Your task to perform on an android device: Check the news Image 0: 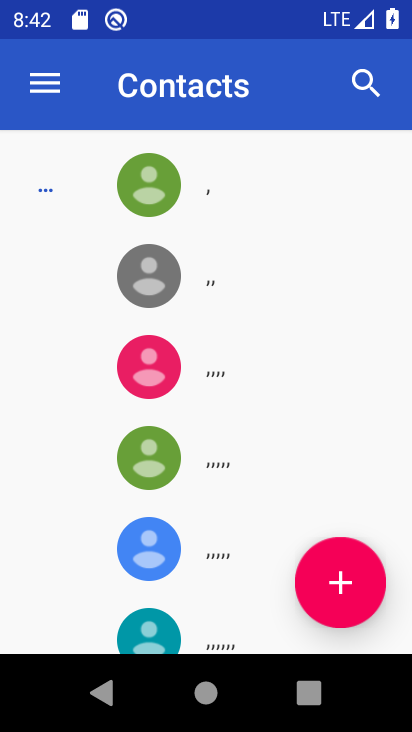
Step 0: press home button
Your task to perform on an android device: Check the news Image 1: 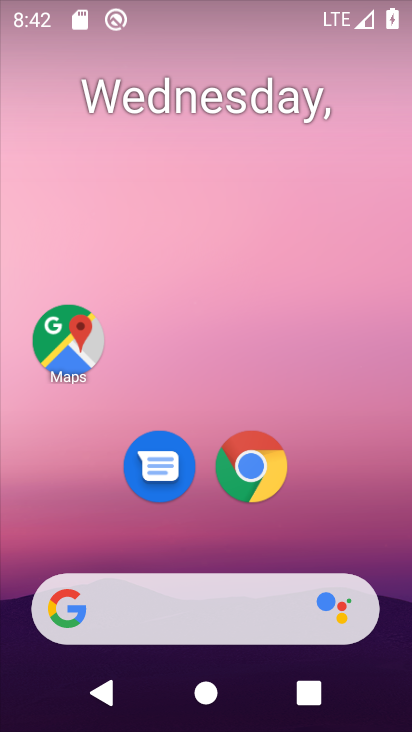
Step 1: task complete